Your task to perform on an android device: turn on bluetooth scan Image 0: 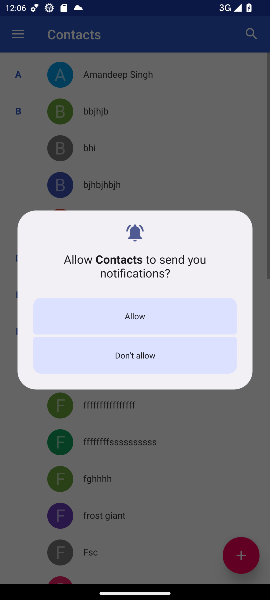
Step 0: press home button
Your task to perform on an android device: turn on bluetooth scan Image 1: 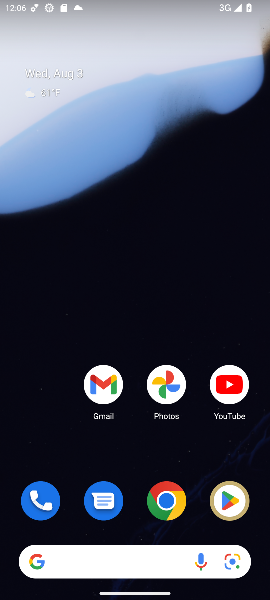
Step 1: drag from (118, 470) to (166, 1)
Your task to perform on an android device: turn on bluetooth scan Image 2: 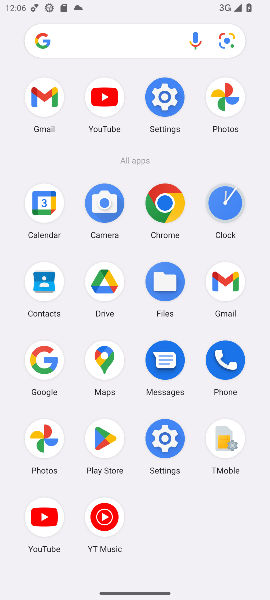
Step 2: click (171, 86)
Your task to perform on an android device: turn on bluetooth scan Image 3: 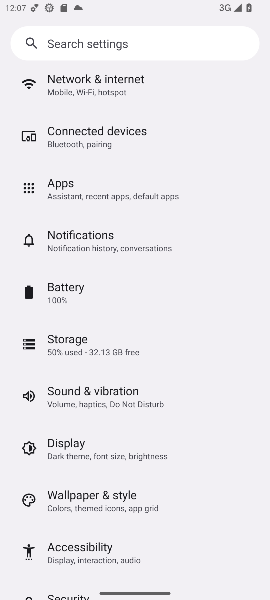
Step 3: drag from (87, 514) to (86, 294)
Your task to perform on an android device: turn on bluetooth scan Image 4: 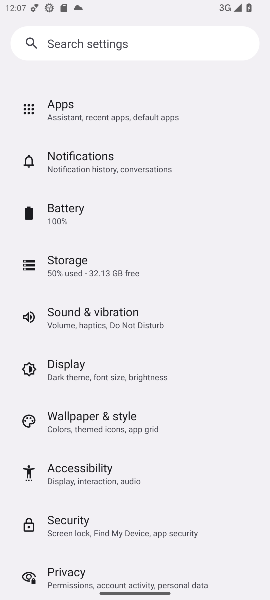
Step 4: drag from (97, 528) to (91, 139)
Your task to perform on an android device: turn on bluetooth scan Image 5: 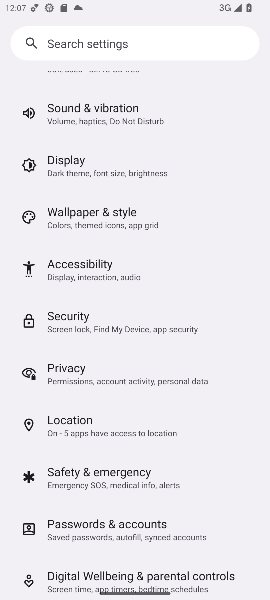
Step 5: click (78, 421)
Your task to perform on an android device: turn on bluetooth scan Image 6: 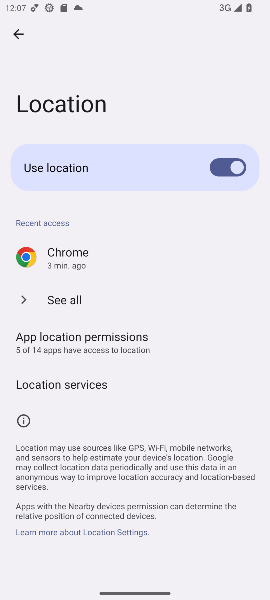
Step 6: click (92, 386)
Your task to perform on an android device: turn on bluetooth scan Image 7: 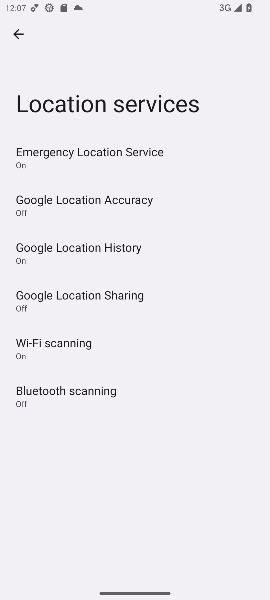
Step 7: click (70, 387)
Your task to perform on an android device: turn on bluetooth scan Image 8: 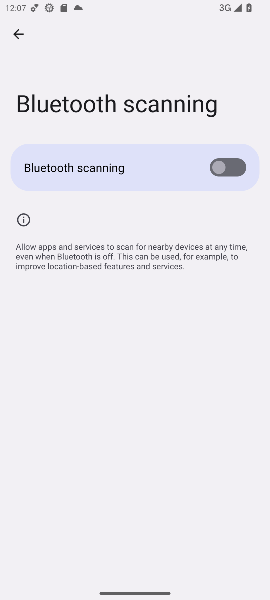
Step 8: click (222, 161)
Your task to perform on an android device: turn on bluetooth scan Image 9: 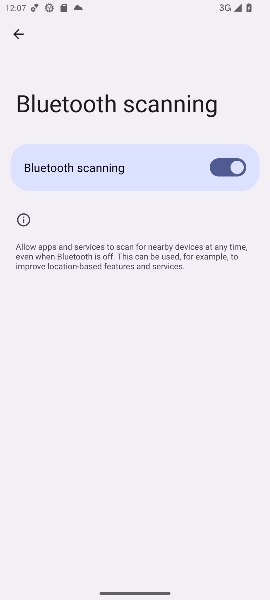
Step 9: task complete